Your task to perform on an android device: uninstall "Facebook" Image 0: 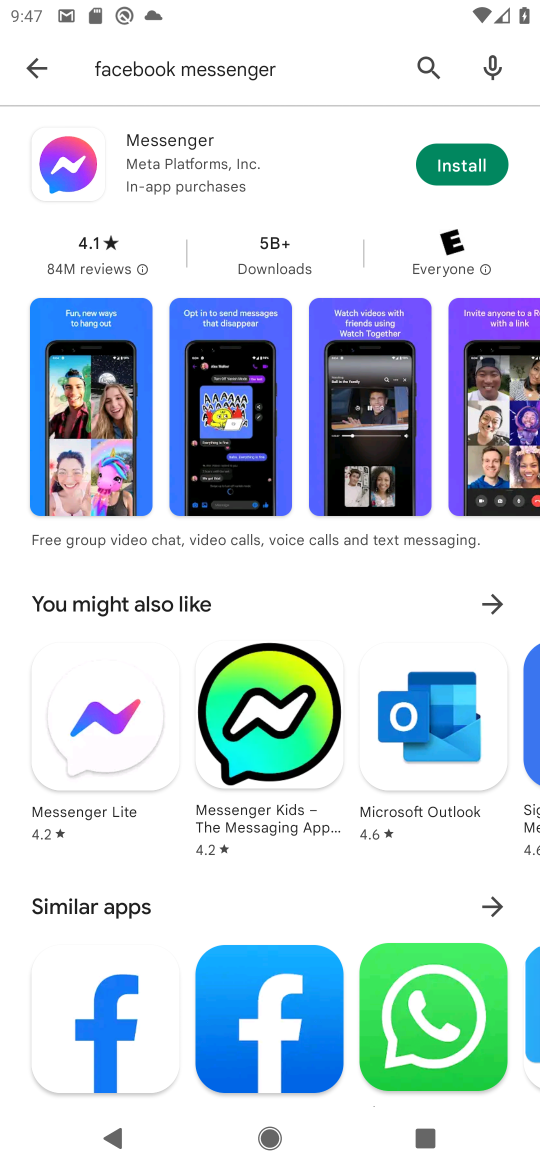
Step 0: press home button
Your task to perform on an android device: uninstall "Facebook" Image 1: 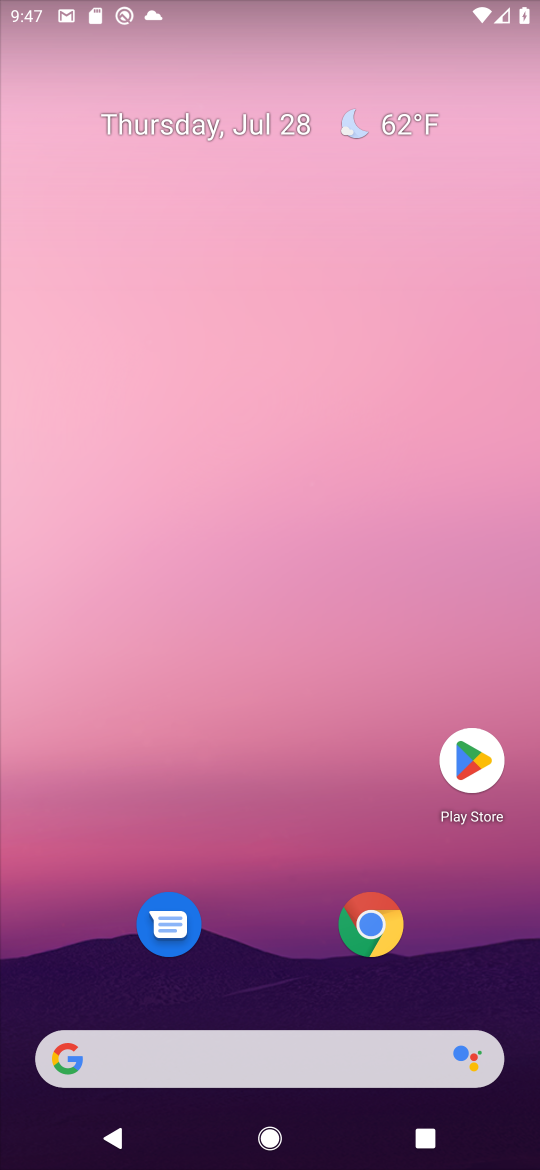
Step 1: click (475, 756)
Your task to perform on an android device: uninstall "Facebook" Image 2: 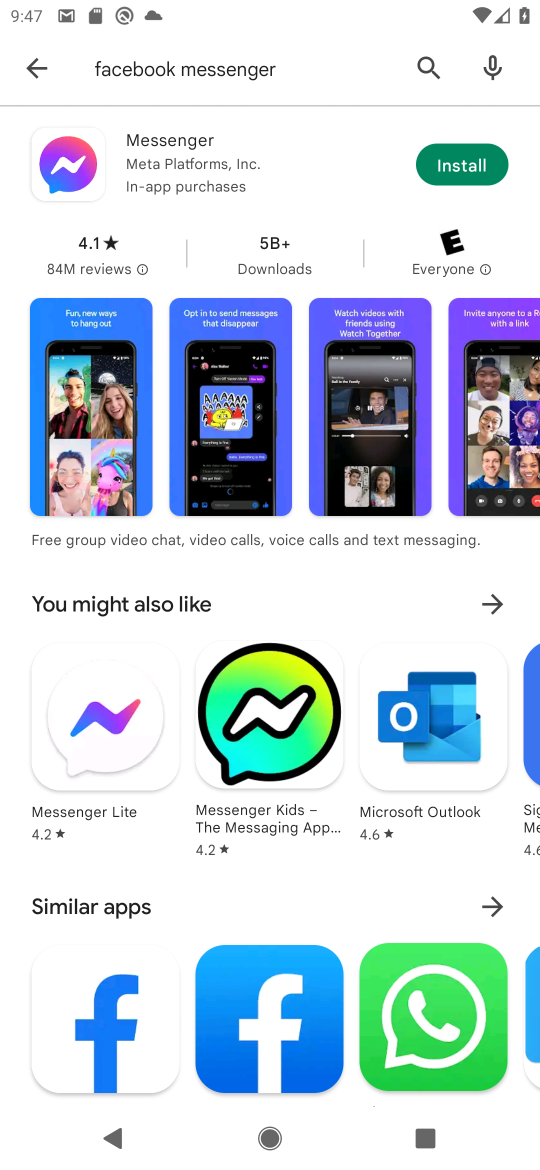
Step 2: click (415, 69)
Your task to perform on an android device: uninstall "Facebook" Image 3: 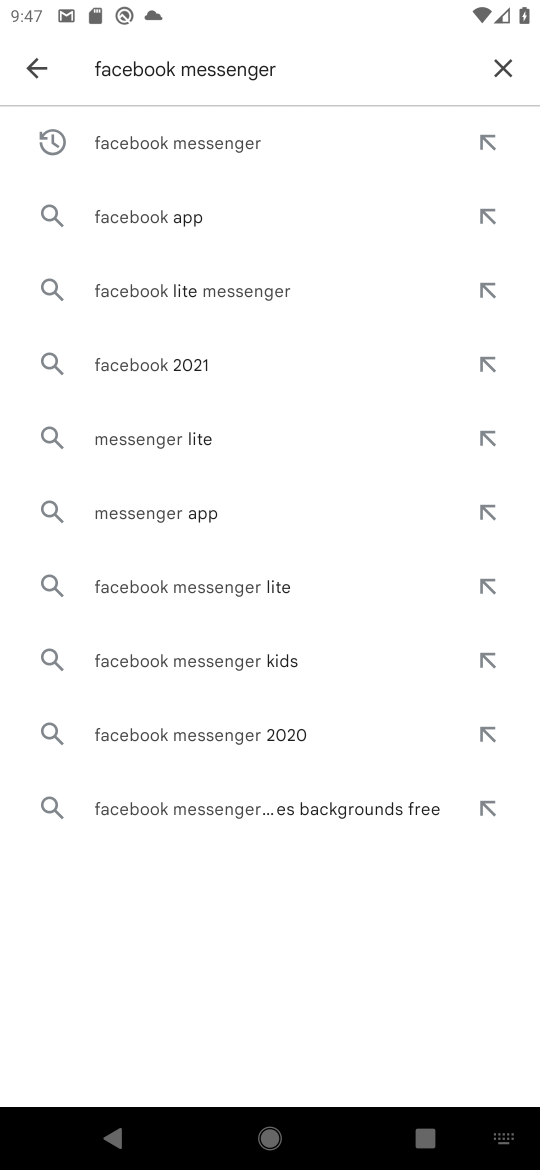
Step 3: click (502, 64)
Your task to perform on an android device: uninstall "Facebook" Image 4: 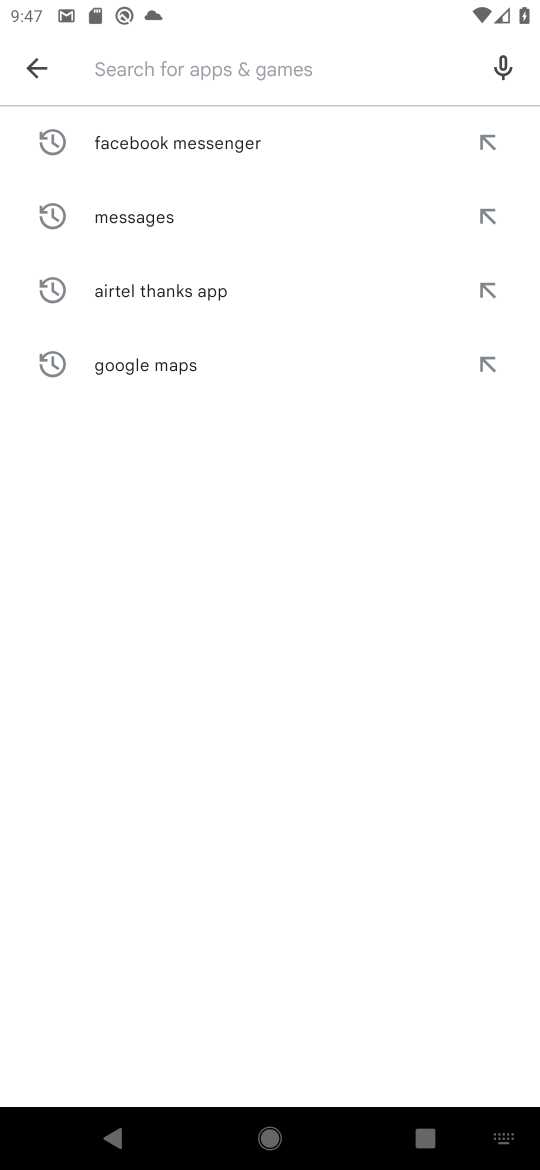
Step 4: type "Facebook"
Your task to perform on an android device: uninstall "Facebook" Image 5: 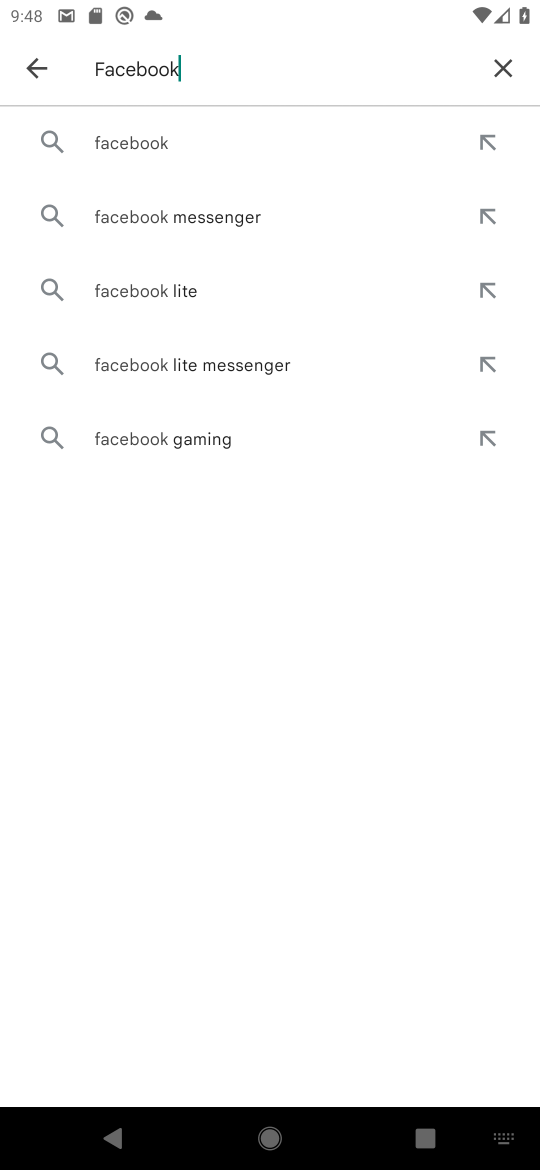
Step 5: click (156, 147)
Your task to perform on an android device: uninstall "Facebook" Image 6: 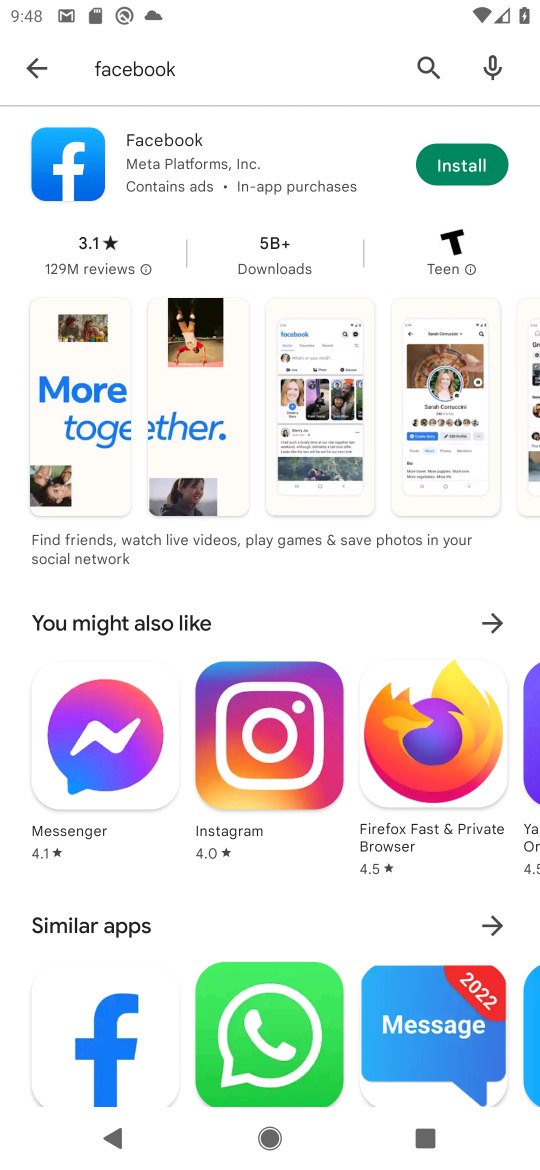
Step 6: task complete